Your task to perform on an android device: Go to notification settings Image 0: 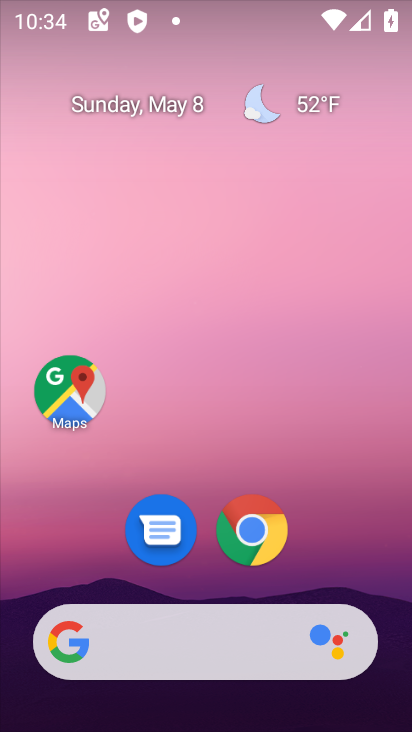
Step 0: drag from (319, 534) to (320, 163)
Your task to perform on an android device: Go to notification settings Image 1: 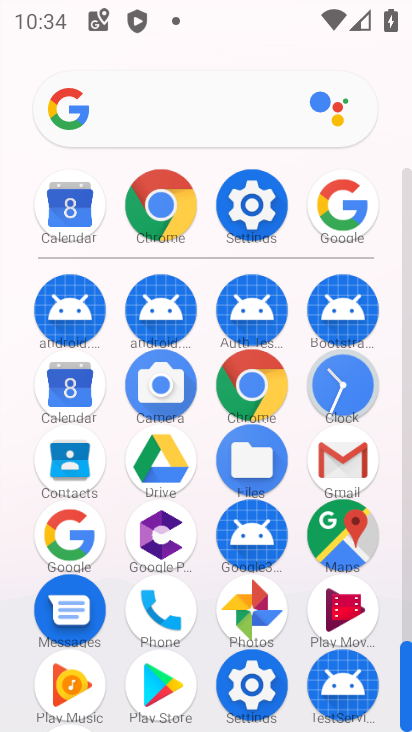
Step 1: click (260, 220)
Your task to perform on an android device: Go to notification settings Image 2: 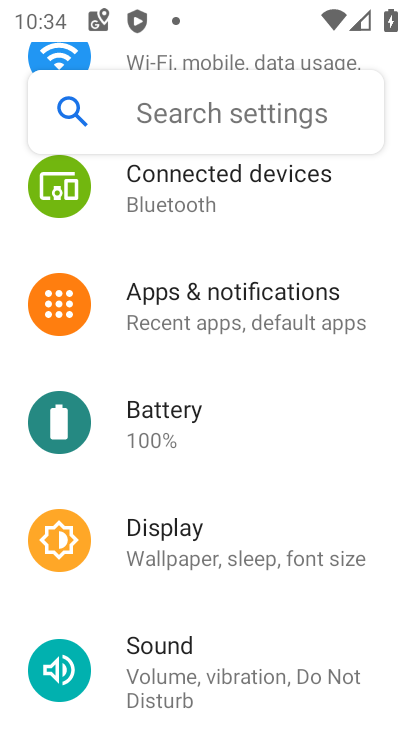
Step 2: click (262, 288)
Your task to perform on an android device: Go to notification settings Image 3: 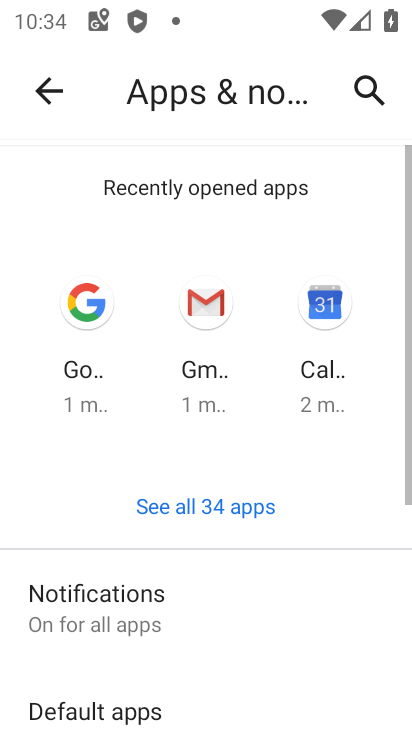
Step 3: click (127, 571)
Your task to perform on an android device: Go to notification settings Image 4: 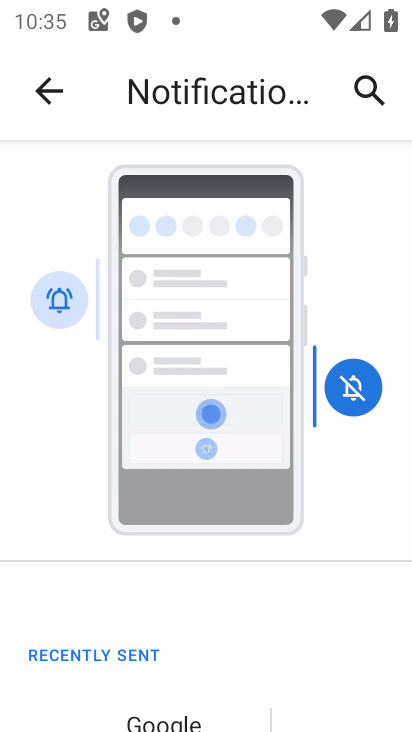
Step 4: task complete